Your task to perform on an android device: change text size in settings app Image 0: 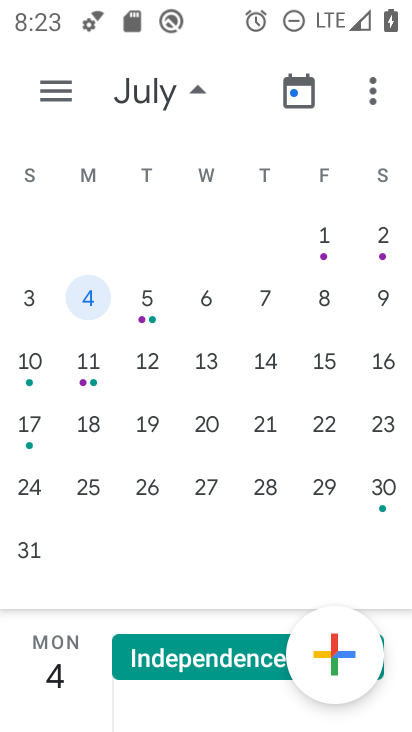
Step 0: press home button
Your task to perform on an android device: change text size in settings app Image 1: 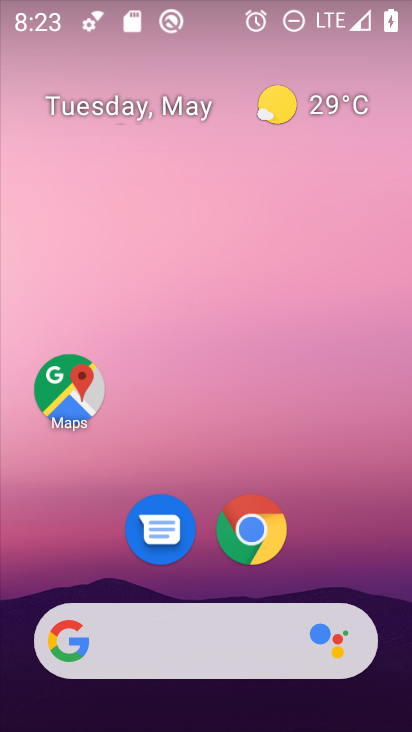
Step 1: drag from (394, 632) to (257, 129)
Your task to perform on an android device: change text size in settings app Image 2: 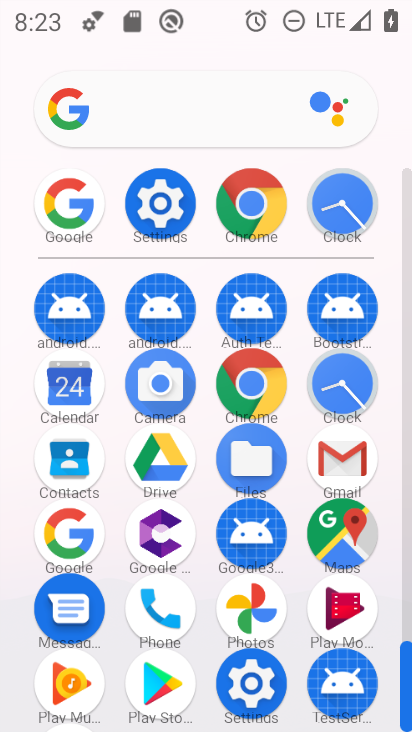
Step 2: click (167, 209)
Your task to perform on an android device: change text size in settings app Image 3: 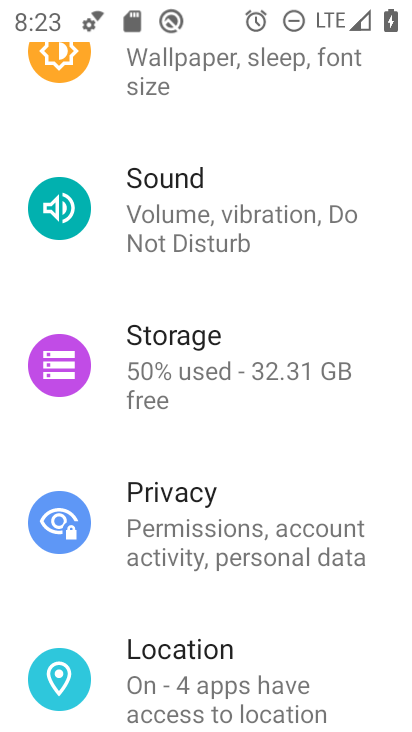
Step 3: drag from (272, 203) to (287, 510)
Your task to perform on an android device: change text size in settings app Image 4: 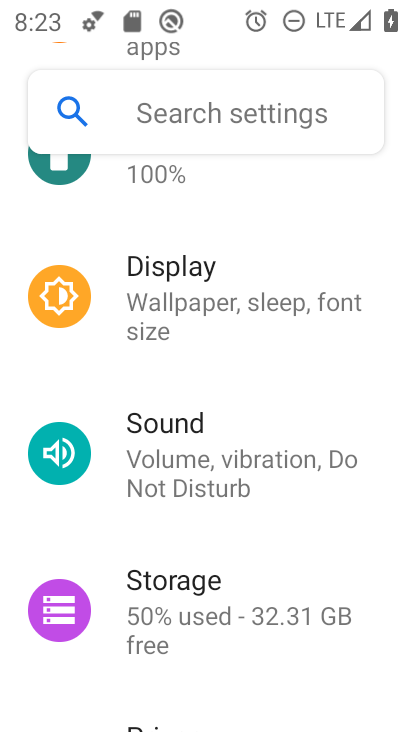
Step 4: click (175, 315)
Your task to perform on an android device: change text size in settings app Image 5: 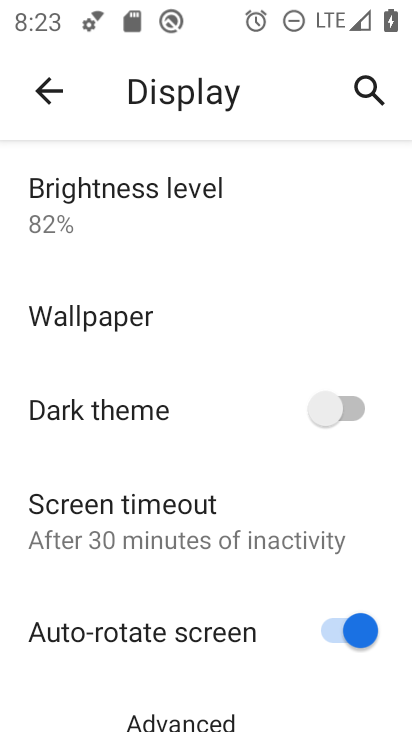
Step 5: drag from (167, 635) to (162, 211)
Your task to perform on an android device: change text size in settings app Image 6: 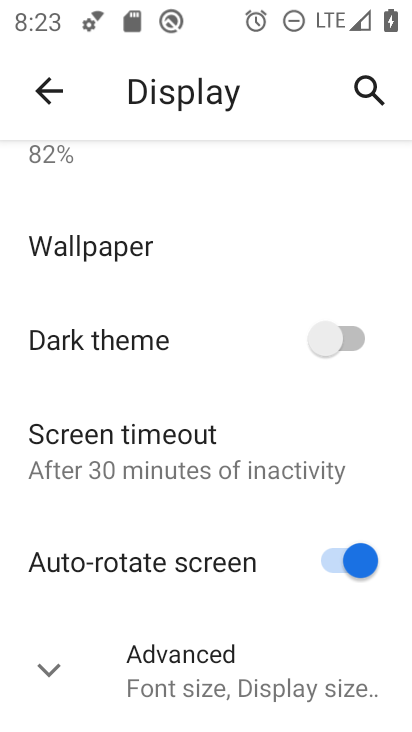
Step 6: click (92, 679)
Your task to perform on an android device: change text size in settings app Image 7: 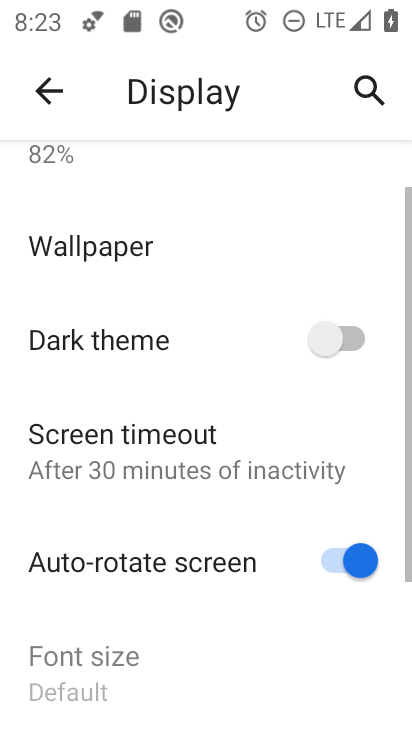
Step 7: drag from (100, 679) to (164, 214)
Your task to perform on an android device: change text size in settings app Image 8: 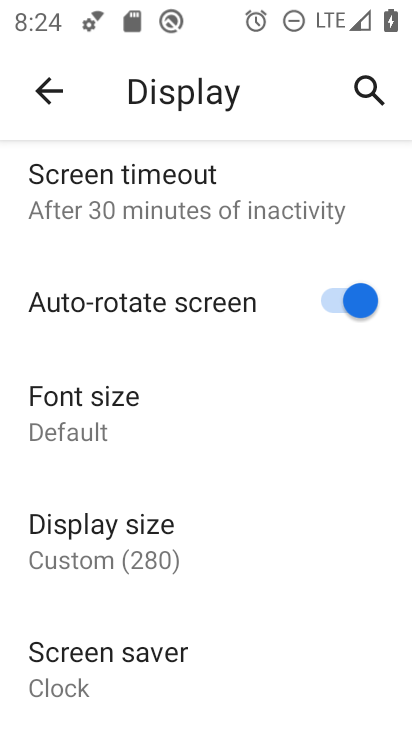
Step 8: click (147, 439)
Your task to perform on an android device: change text size in settings app Image 9: 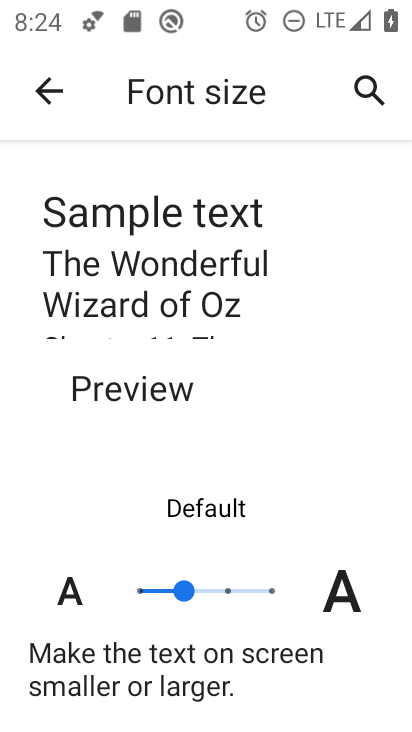
Step 9: click (222, 600)
Your task to perform on an android device: change text size in settings app Image 10: 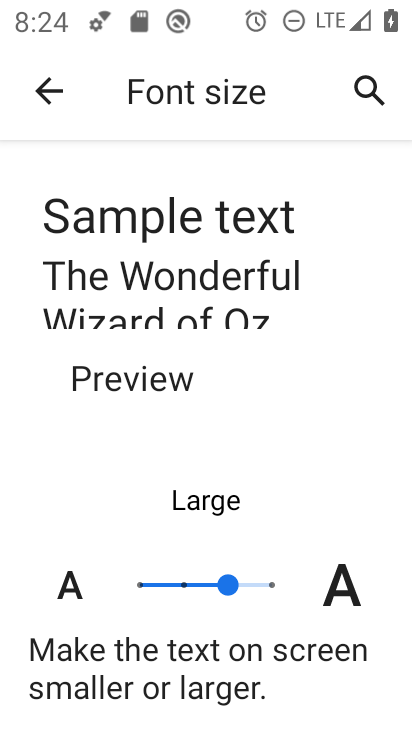
Step 10: task complete